Your task to perform on an android device: visit the assistant section in the google photos Image 0: 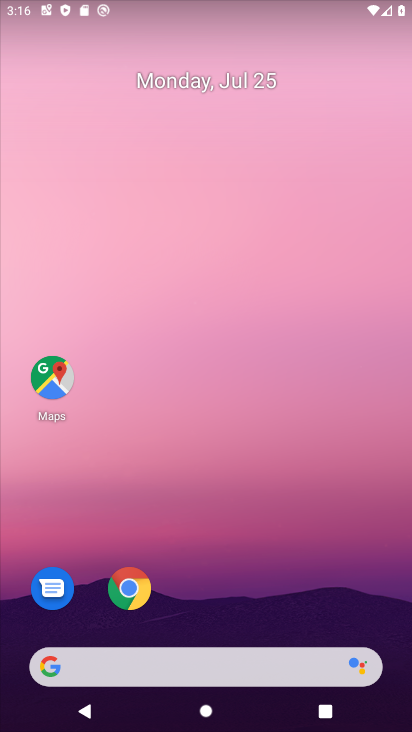
Step 0: drag from (208, 599) to (273, 20)
Your task to perform on an android device: visit the assistant section in the google photos Image 1: 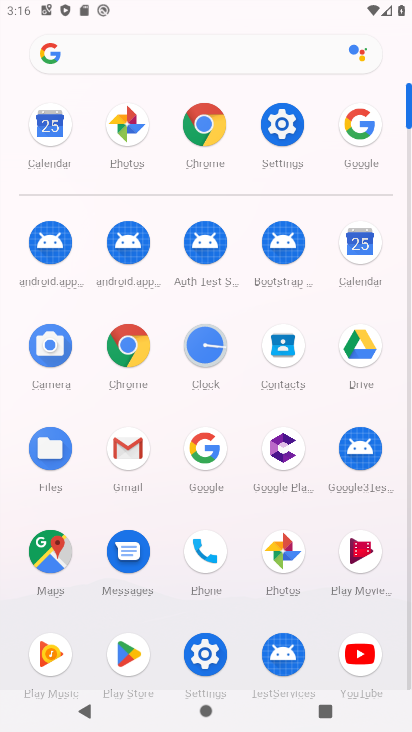
Step 1: click (135, 133)
Your task to perform on an android device: visit the assistant section in the google photos Image 2: 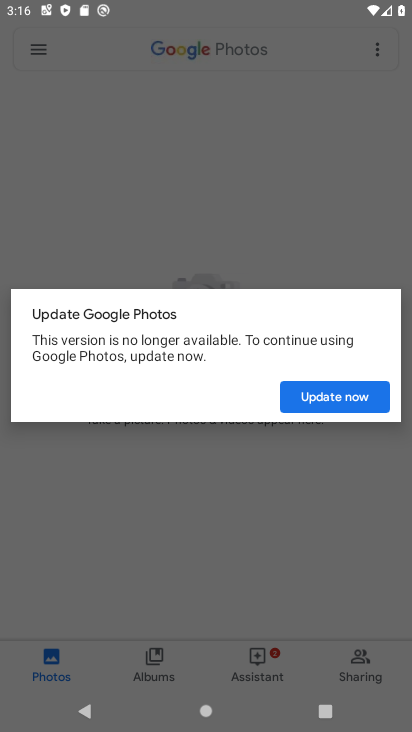
Step 2: click (327, 408)
Your task to perform on an android device: visit the assistant section in the google photos Image 3: 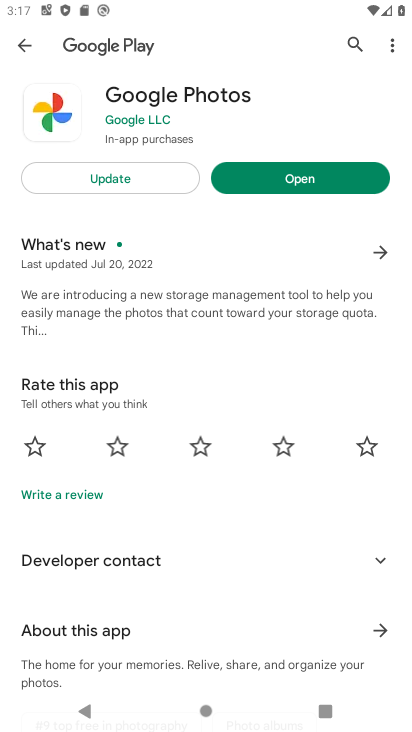
Step 3: click (285, 180)
Your task to perform on an android device: visit the assistant section in the google photos Image 4: 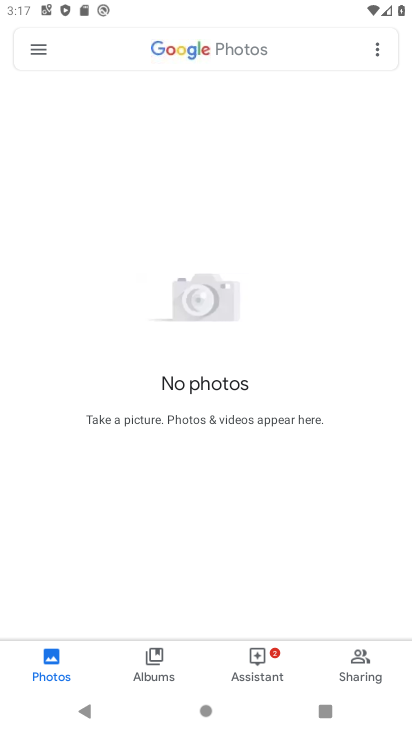
Step 4: click (257, 660)
Your task to perform on an android device: visit the assistant section in the google photos Image 5: 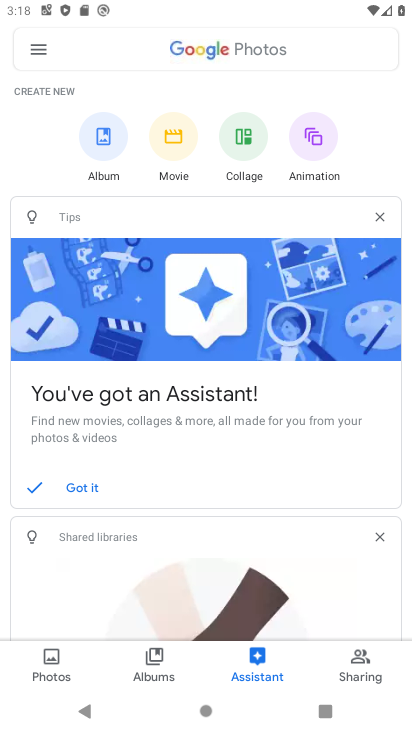
Step 5: task complete